Your task to perform on an android device: Go to Android settings Image 0: 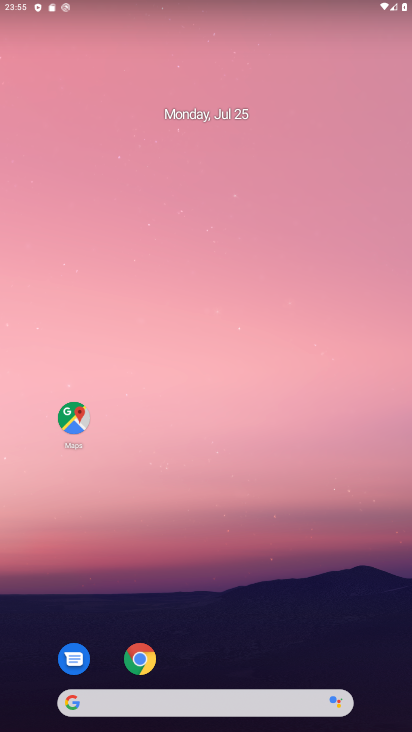
Step 0: drag from (314, 453) to (338, 72)
Your task to perform on an android device: Go to Android settings Image 1: 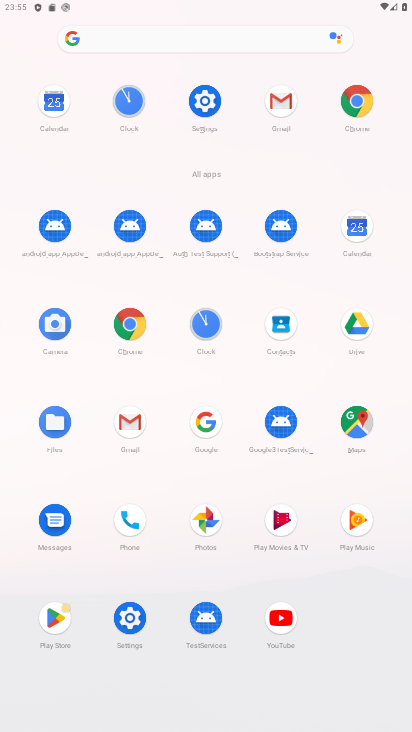
Step 1: click (211, 97)
Your task to perform on an android device: Go to Android settings Image 2: 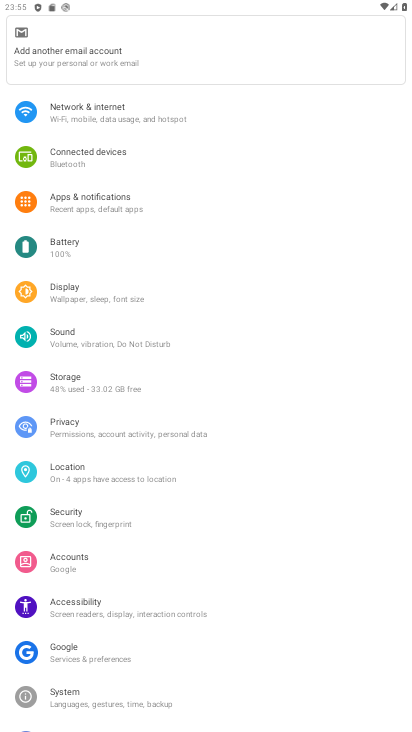
Step 2: task complete